Your task to perform on an android device: all mails in gmail Image 0: 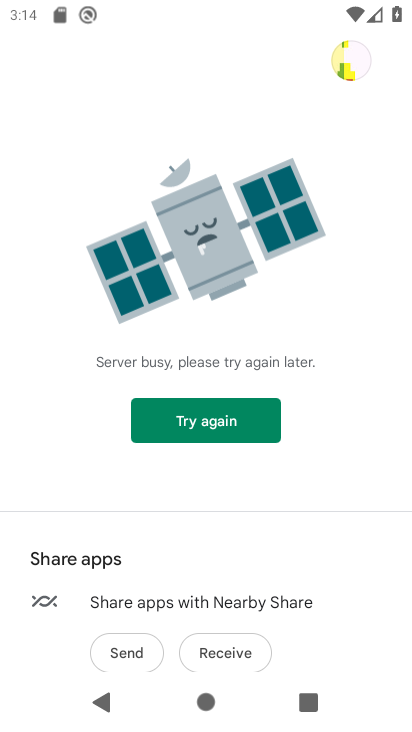
Step 0: press home button
Your task to perform on an android device: all mails in gmail Image 1: 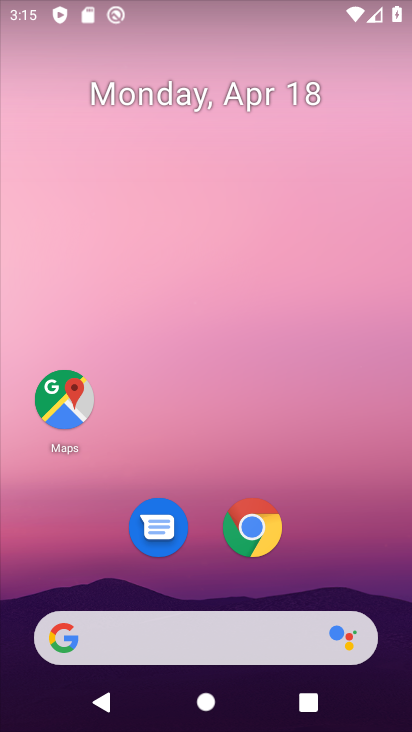
Step 1: drag from (129, 644) to (142, 186)
Your task to perform on an android device: all mails in gmail Image 2: 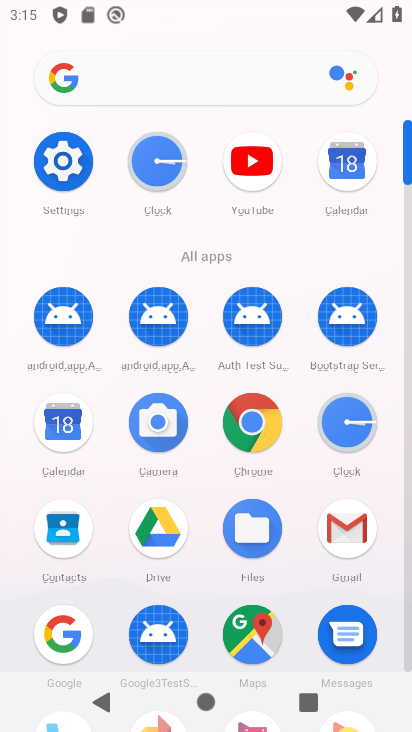
Step 2: click (346, 538)
Your task to perform on an android device: all mails in gmail Image 3: 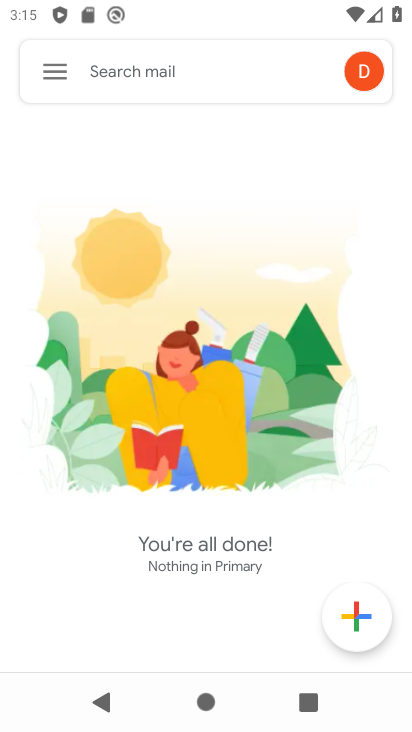
Step 3: click (54, 74)
Your task to perform on an android device: all mails in gmail Image 4: 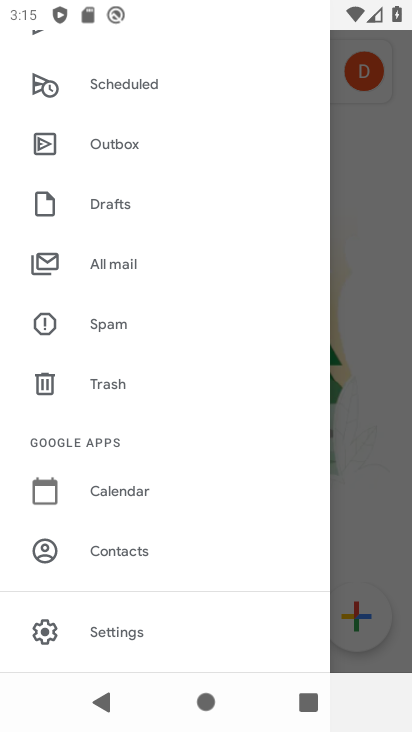
Step 4: drag from (115, 327) to (83, 723)
Your task to perform on an android device: all mails in gmail Image 5: 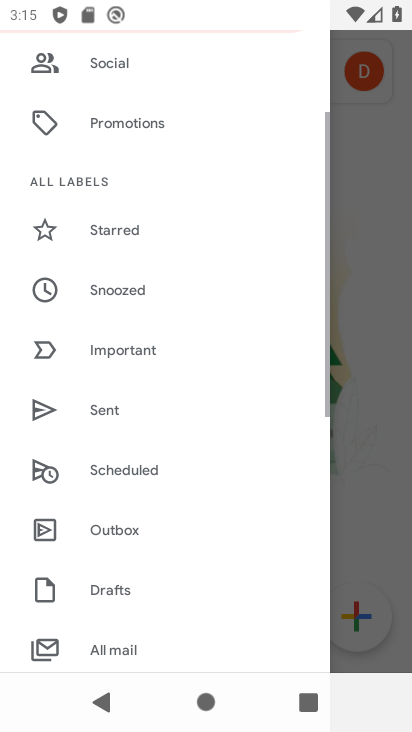
Step 5: drag from (123, 347) to (131, 526)
Your task to perform on an android device: all mails in gmail Image 6: 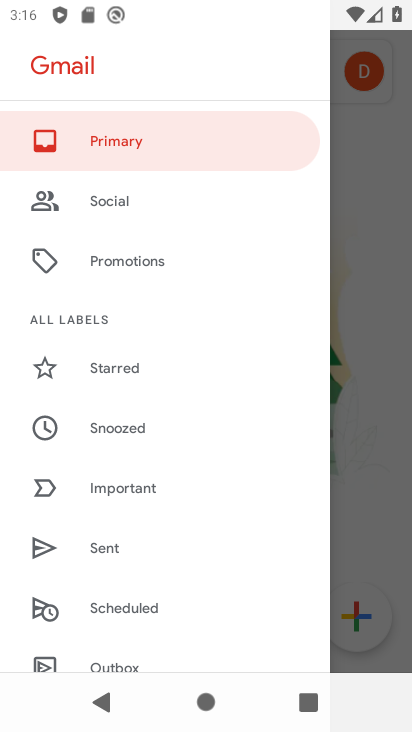
Step 6: drag from (93, 414) to (86, 721)
Your task to perform on an android device: all mails in gmail Image 7: 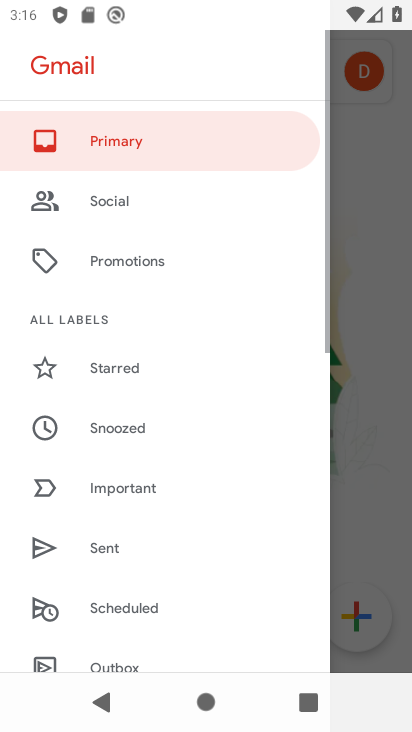
Step 7: drag from (178, 549) to (191, 96)
Your task to perform on an android device: all mails in gmail Image 8: 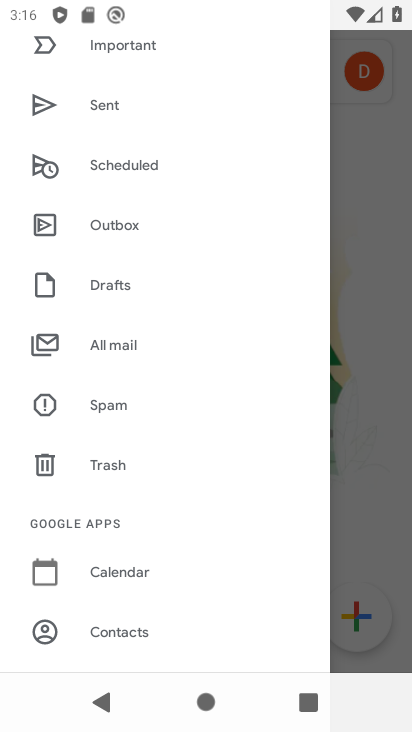
Step 8: click (107, 351)
Your task to perform on an android device: all mails in gmail Image 9: 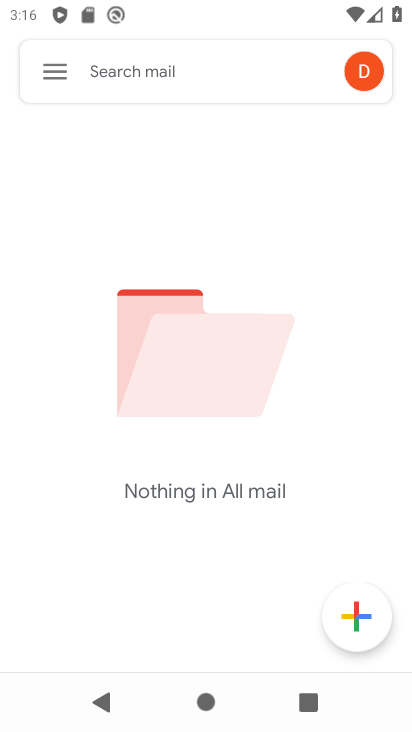
Step 9: task complete